Your task to perform on an android device: toggle javascript in the chrome app Image 0: 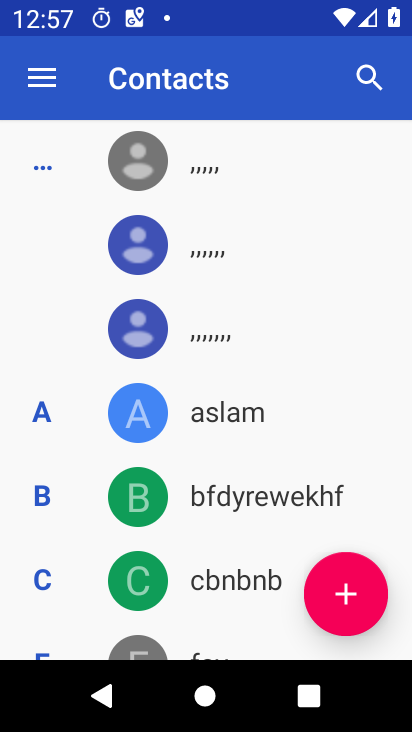
Step 0: press home button
Your task to perform on an android device: toggle javascript in the chrome app Image 1: 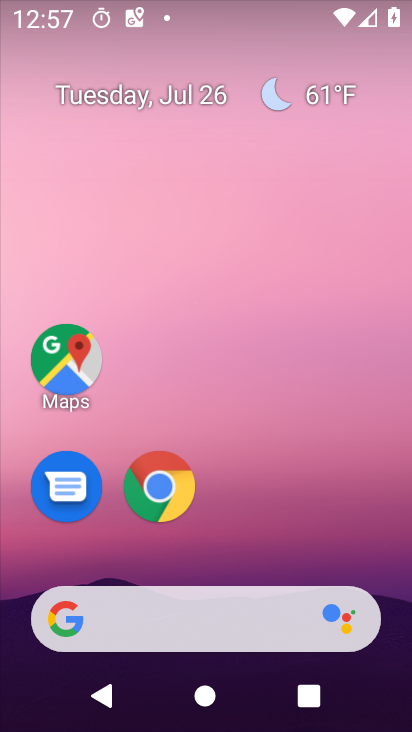
Step 1: drag from (362, 537) to (371, 155)
Your task to perform on an android device: toggle javascript in the chrome app Image 2: 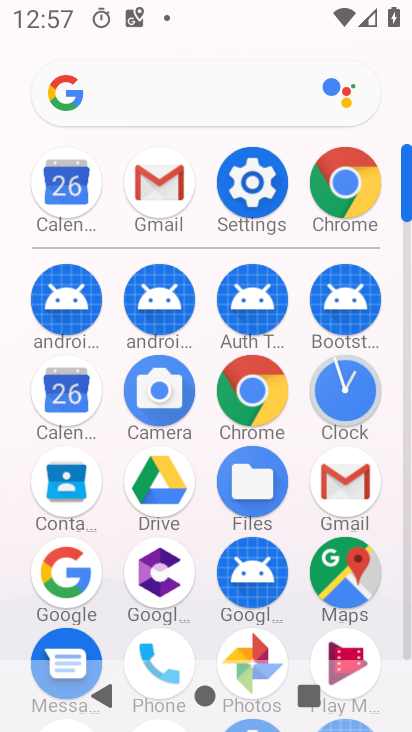
Step 2: click (276, 391)
Your task to perform on an android device: toggle javascript in the chrome app Image 3: 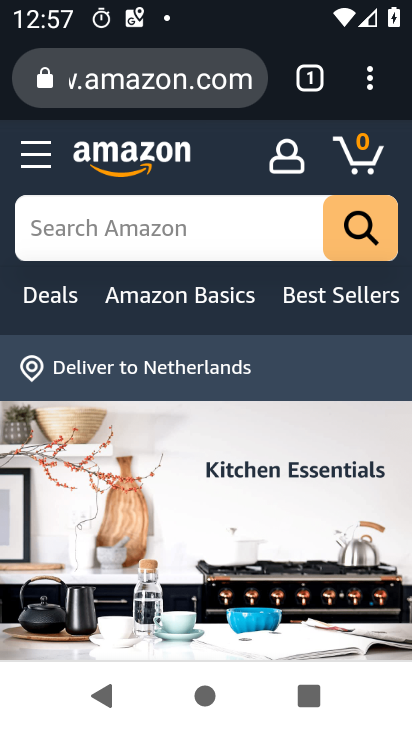
Step 3: click (371, 86)
Your task to perform on an android device: toggle javascript in the chrome app Image 4: 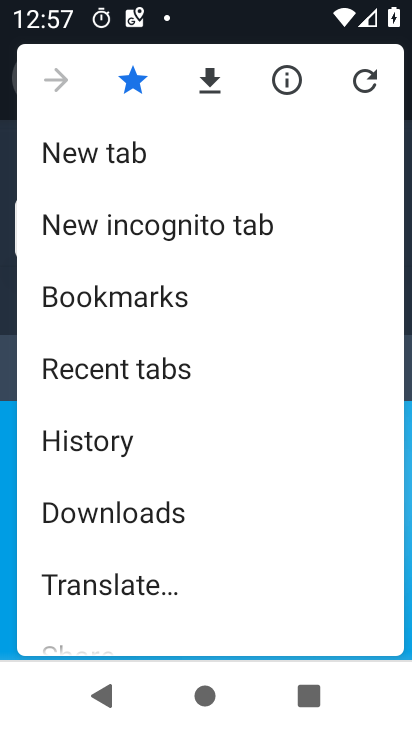
Step 4: drag from (320, 491) to (313, 365)
Your task to perform on an android device: toggle javascript in the chrome app Image 5: 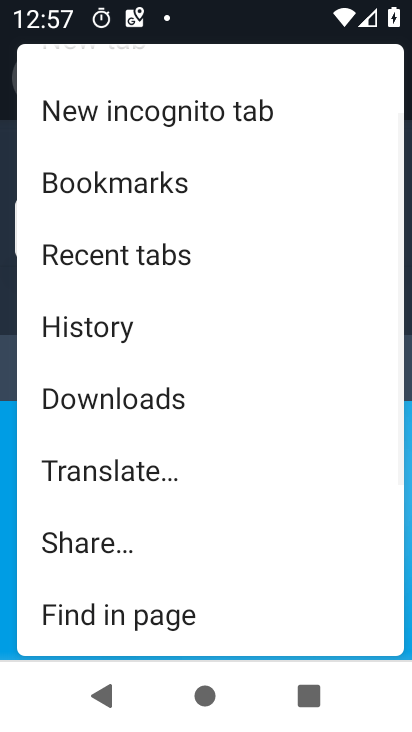
Step 5: drag from (290, 481) to (290, 382)
Your task to perform on an android device: toggle javascript in the chrome app Image 6: 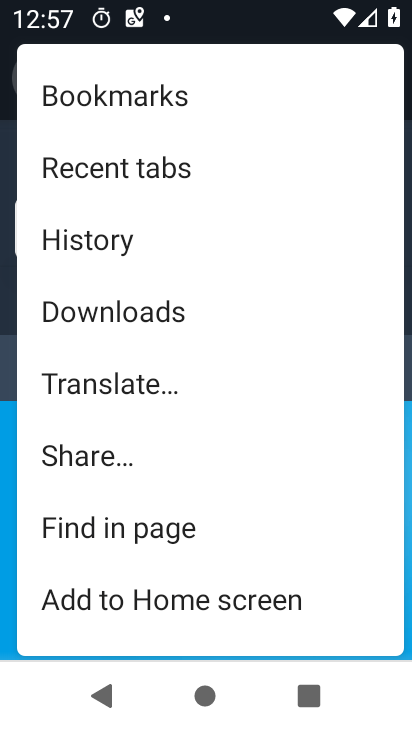
Step 6: drag from (294, 538) to (294, 409)
Your task to perform on an android device: toggle javascript in the chrome app Image 7: 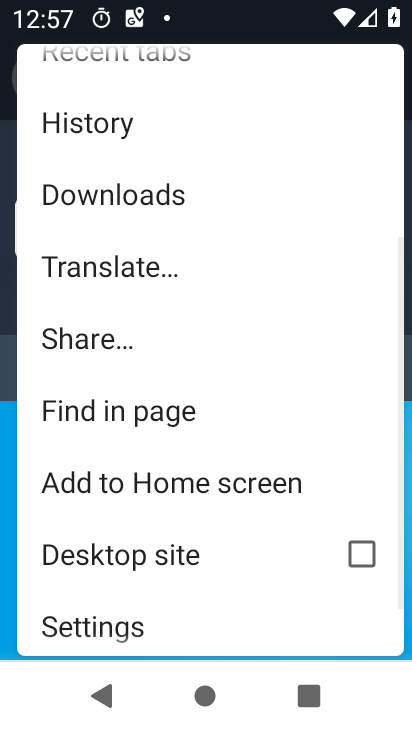
Step 7: drag from (254, 461) to (252, 424)
Your task to perform on an android device: toggle javascript in the chrome app Image 8: 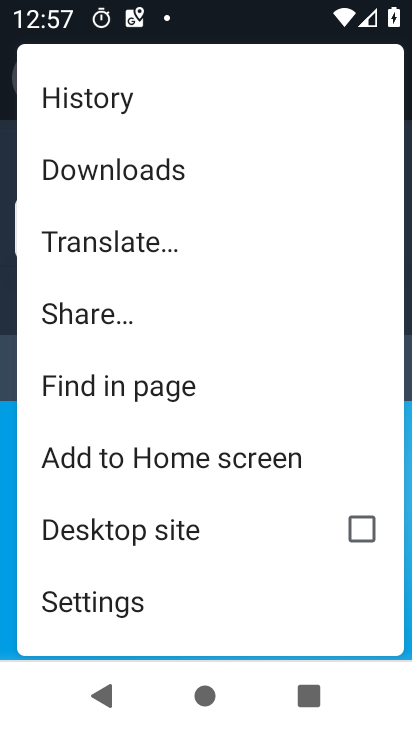
Step 8: drag from (251, 596) to (251, 395)
Your task to perform on an android device: toggle javascript in the chrome app Image 9: 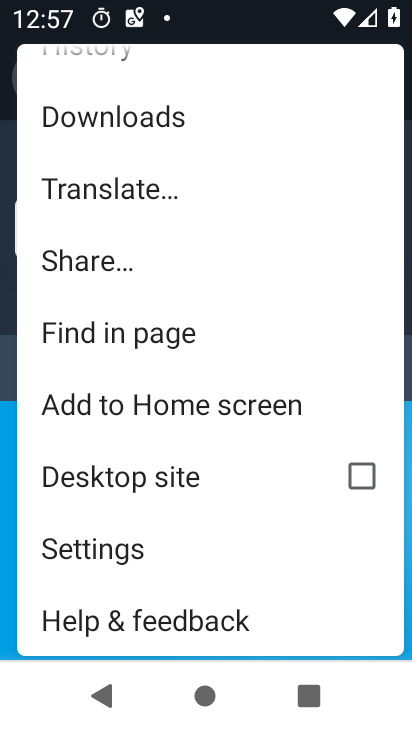
Step 9: click (131, 545)
Your task to perform on an android device: toggle javascript in the chrome app Image 10: 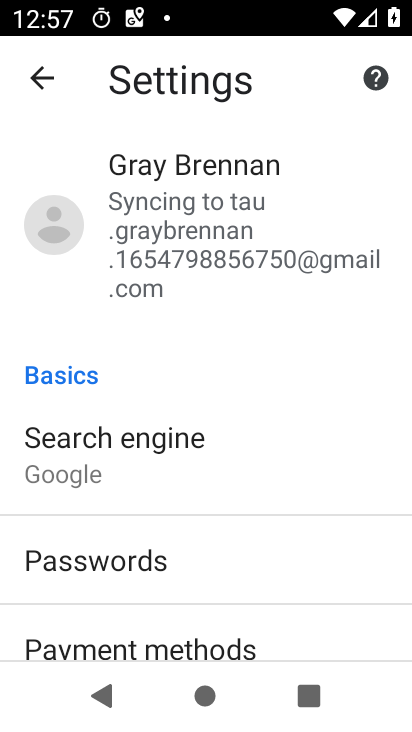
Step 10: drag from (317, 610) to (324, 475)
Your task to perform on an android device: toggle javascript in the chrome app Image 11: 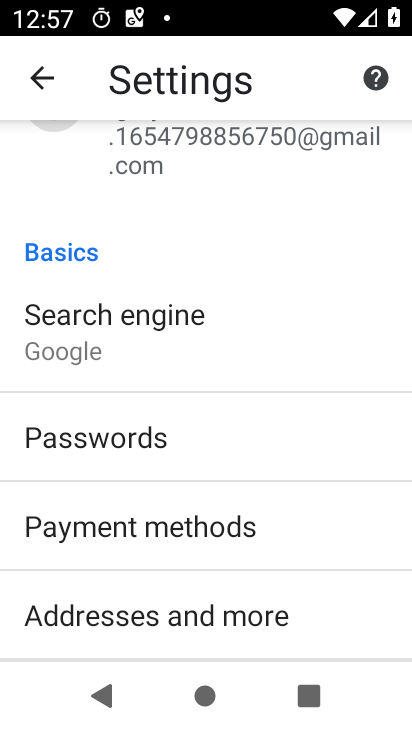
Step 11: drag from (336, 612) to (335, 486)
Your task to perform on an android device: toggle javascript in the chrome app Image 12: 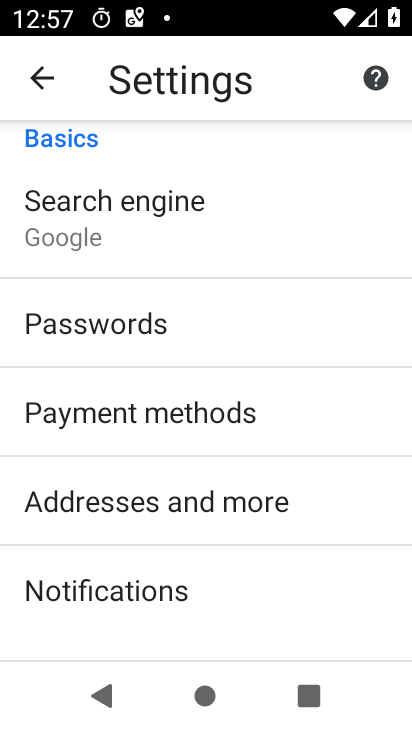
Step 12: drag from (328, 599) to (326, 393)
Your task to perform on an android device: toggle javascript in the chrome app Image 13: 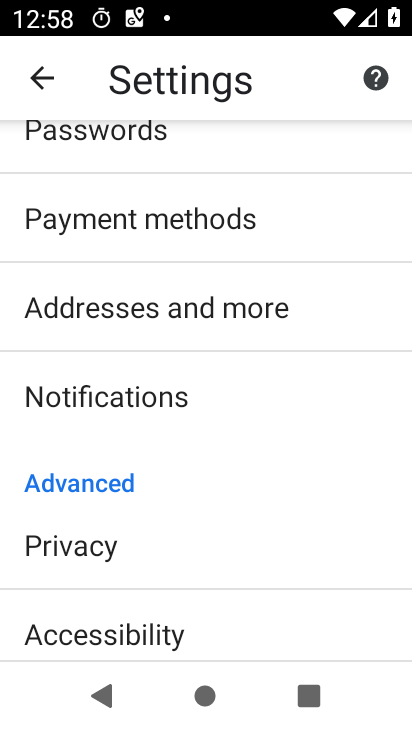
Step 13: drag from (311, 578) to (296, 421)
Your task to perform on an android device: toggle javascript in the chrome app Image 14: 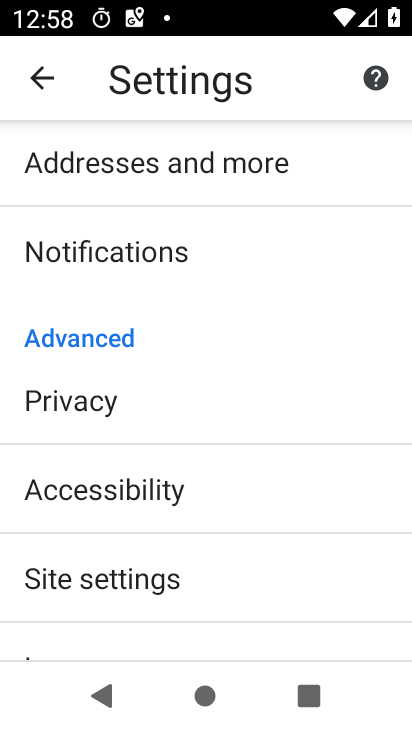
Step 14: drag from (293, 575) to (288, 433)
Your task to perform on an android device: toggle javascript in the chrome app Image 15: 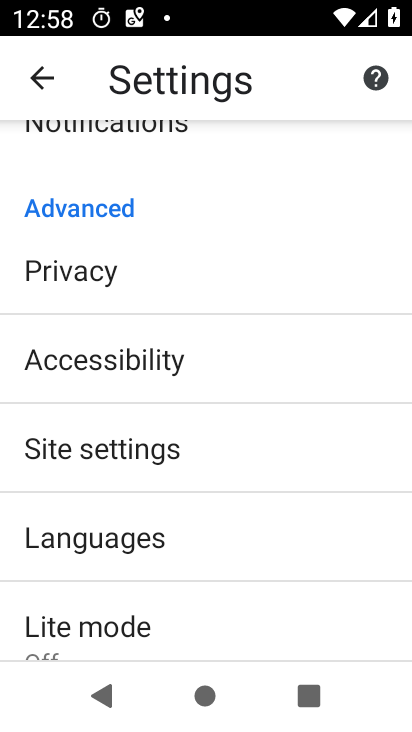
Step 15: drag from (276, 580) to (271, 438)
Your task to perform on an android device: toggle javascript in the chrome app Image 16: 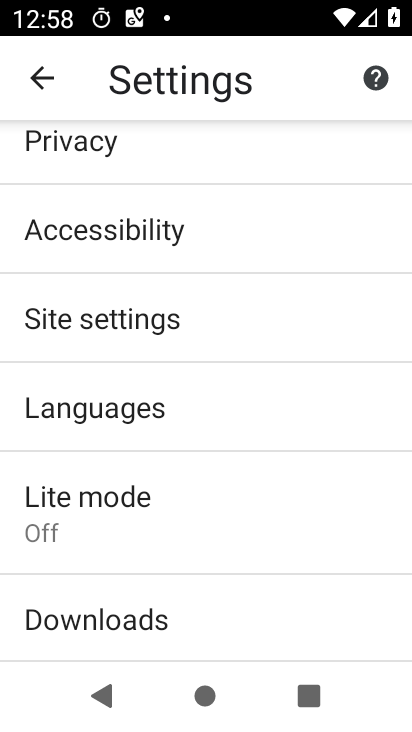
Step 16: click (220, 309)
Your task to perform on an android device: toggle javascript in the chrome app Image 17: 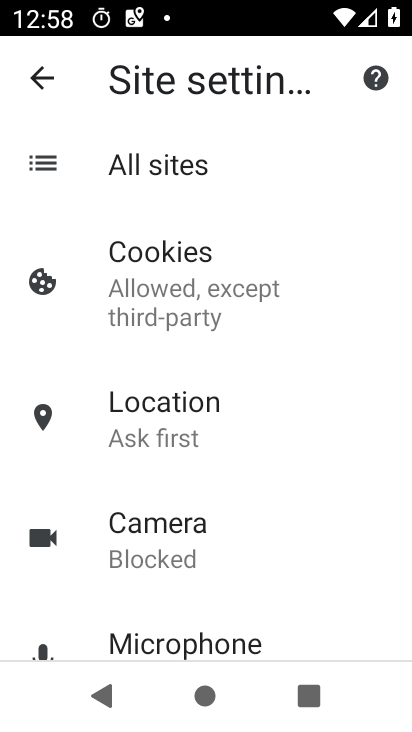
Step 17: drag from (300, 542) to (313, 402)
Your task to perform on an android device: toggle javascript in the chrome app Image 18: 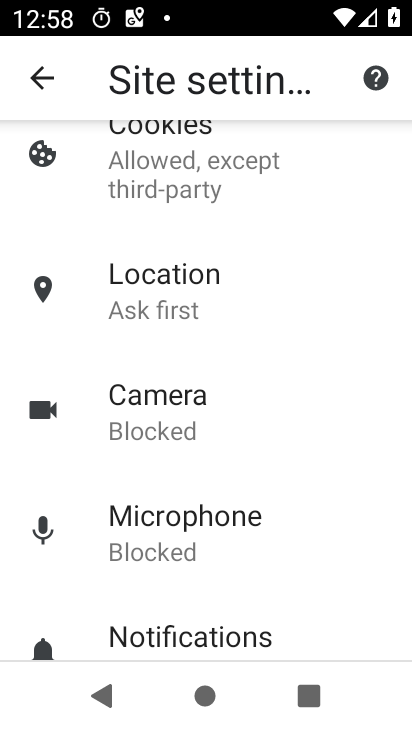
Step 18: drag from (335, 566) to (335, 458)
Your task to perform on an android device: toggle javascript in the chrome app Image 19: 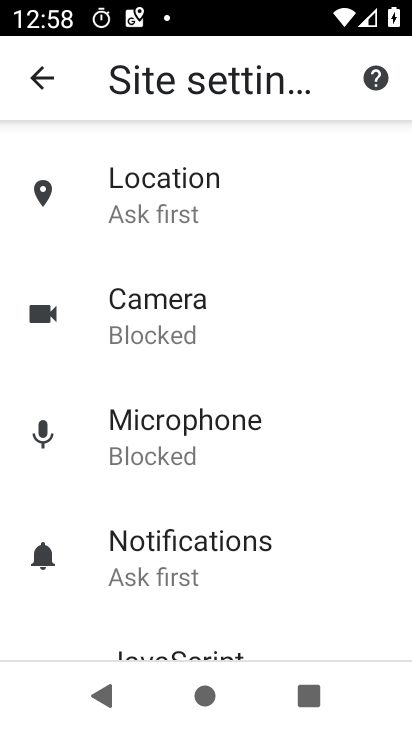
Step 19: drag from (330, 589) to (327, 438)
Your task to perform on an android device: toggle javascript in the chrome app Image 20: 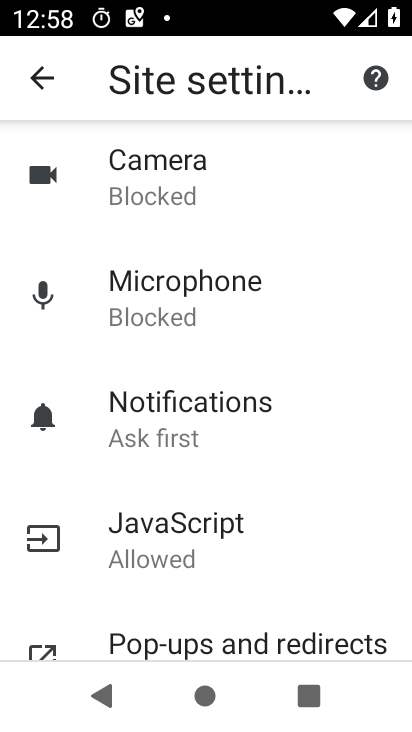
Step 20: drag from (324, 537) to (324, 434)
Your task to perform on an android device: toggle javascript in the chrome app Image 21: 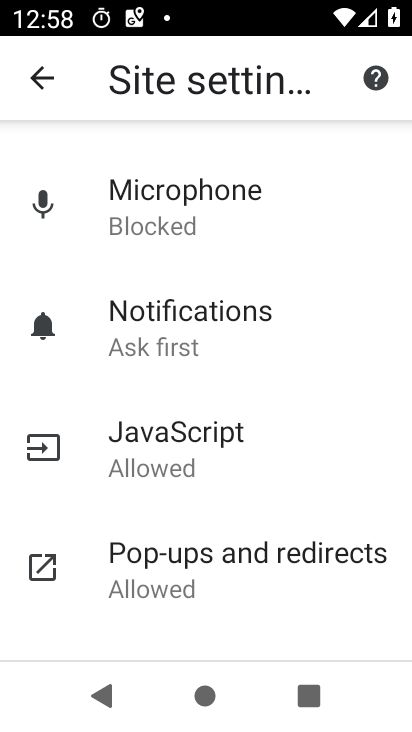
Step 21: drag from (287, 486) to (305, 357)
Your task to perform on an android device: toggle javascript in the chrome app Image 22: 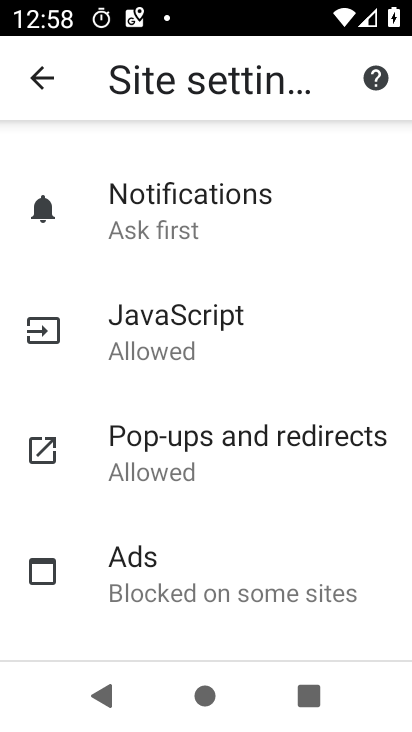
Step 22: drag from (298, 522) to (297, 386)
Your task to perform on an android device: toggle javascript in the chrome app Image 23: 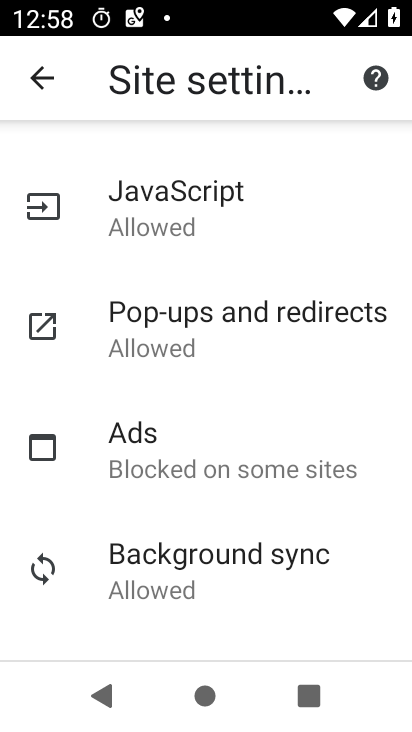
Step 23: click (239, 335)
Your task to perform on an android device: toggle javascript in the chrome app Image 24: 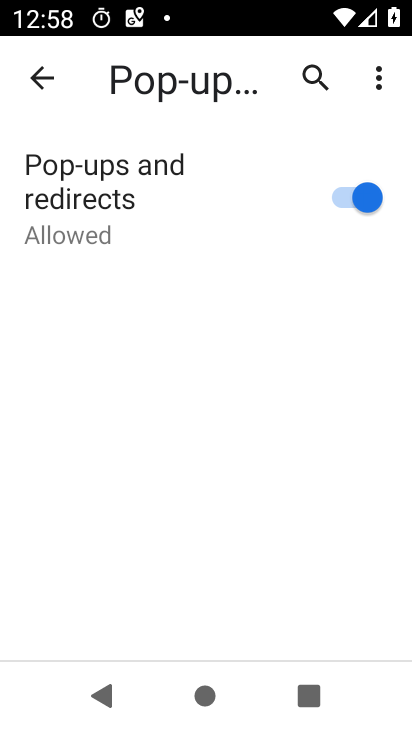
Step 24: task complete